Your task to perform on an android device: turn on wifi Image 0: 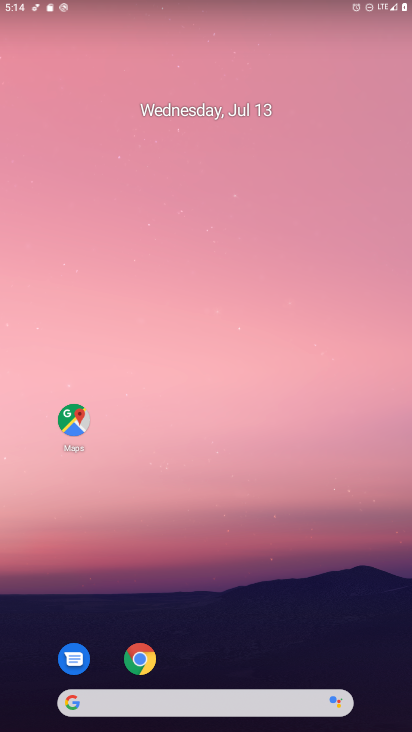
Step 0: drag from (230, 598) to (229, 42)
Your task to perform on an android device: turn on wifi Image 1: 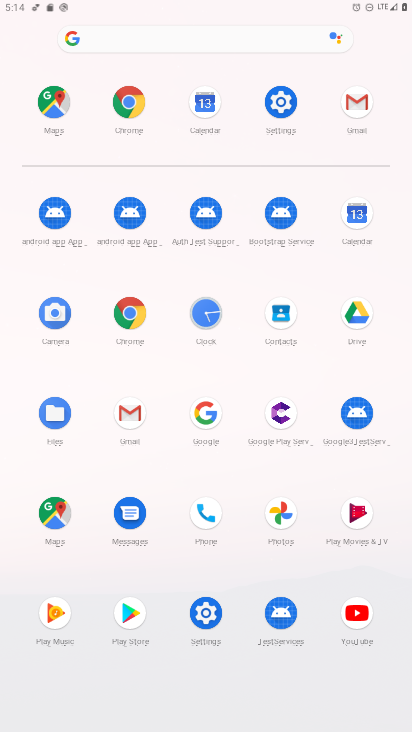
Step 1: click (281, 90)
Your task to perform on an android device: turn on wifi Image 2: 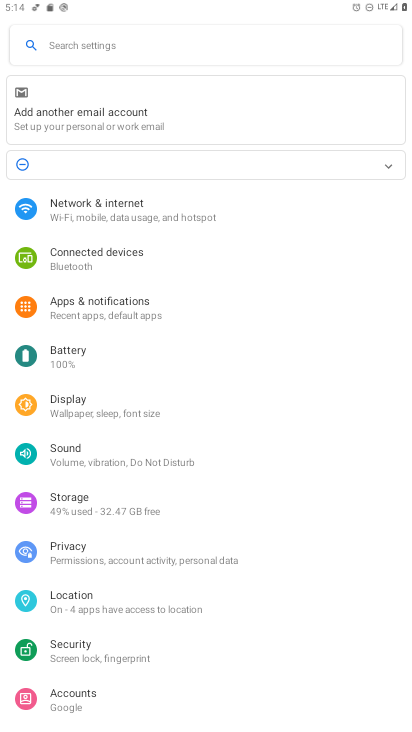
Step 2: click (134, 200)
Your task to perform on an android device: turn on wifi Image 3: 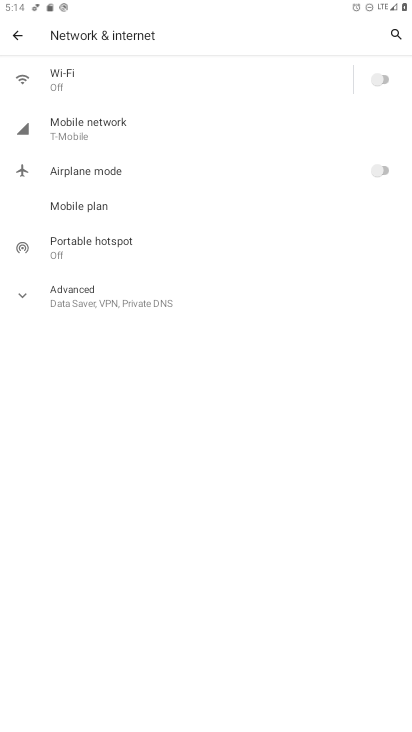
Step 3: click (382, 83)
Your task to perform on an android device: turn on wifi Image 4: 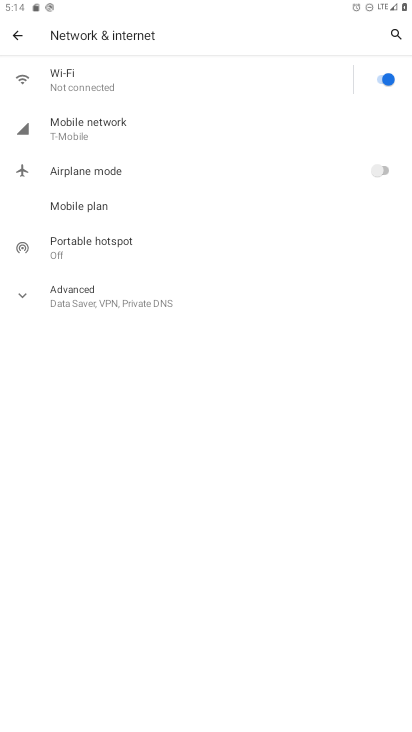
Step 4: task complete